Your task to perform on an android device: Search for alienware aurora on amazon, select the first entry, and add it to the cart. Image 0: 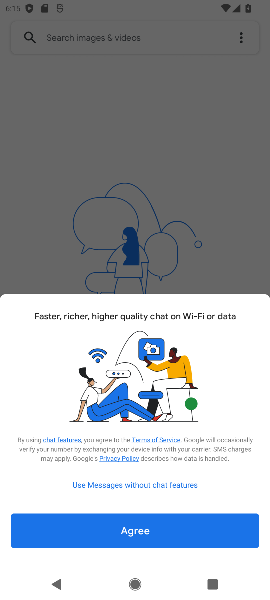
Step 0: press home button
Your task to perform on an android device: Search for alienware aurora on amazon, select the first entry, and add it to the cart. Image 1: 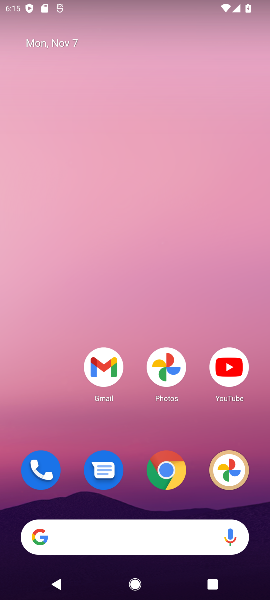
Step 1: click (153, 477)
Your task to perform on an android device: Search for alienware aurora on amazon, select the first entry, and add it to the cart. Image 2: 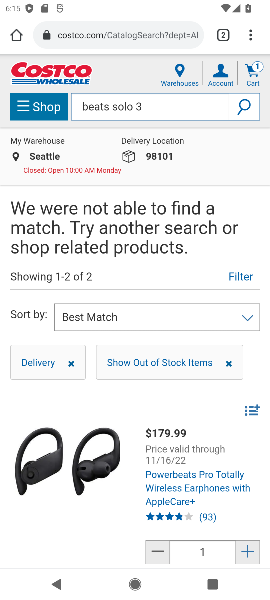
Step 2: click (112, 36)
Your task to perform on an android device: Search for alienware aurora on amazon, select the first entry, and add it to the cart. Image 3: 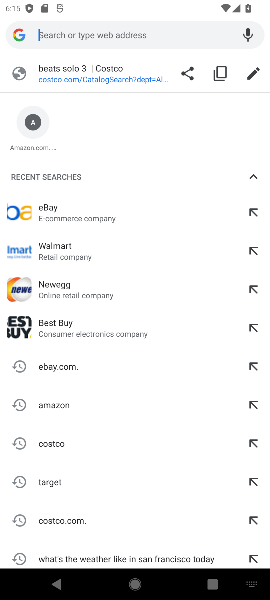
Step 3: click (86, 407)
Your task to perform on an android device: Search for alienware aurora on amazon, select the first entry, and add it to the cart. Image 4: 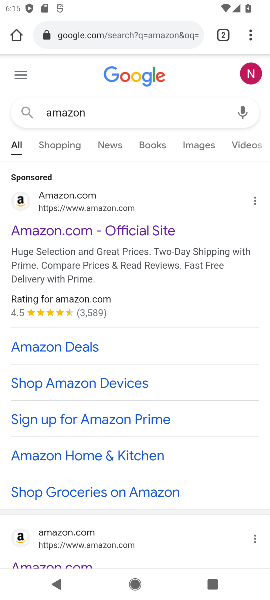
Step 4: click (100, 226)
Your task to perform on an android device: Search for alienware aurora on amazon, select the first entry, and add it to the cart. Image 5: 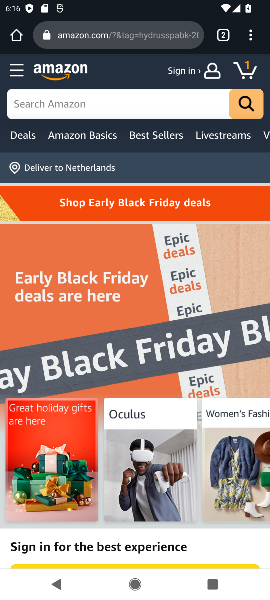
Step 5: click (82, 106)
Your task to perform on an android device: Search for alienware aurora on amazon, select the first entry, and add it to the cart. Image 6: 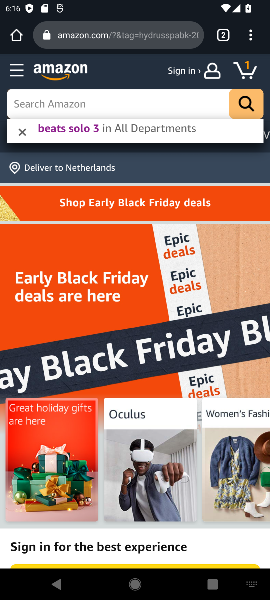
Step 6: type "alienware aurora"
Your task to perform on an android device: Search for alienware aurora on amazon, select the first entry, and add it to the cart. Image 7: 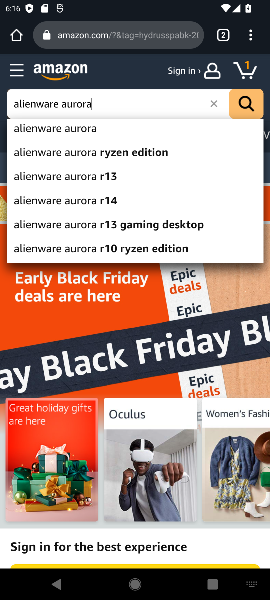
Step 7: click (244, 99)
Your task to perform on an android device: Search for alienware aurora on amazon, select the first entry, and add it to the cart. Image 8: 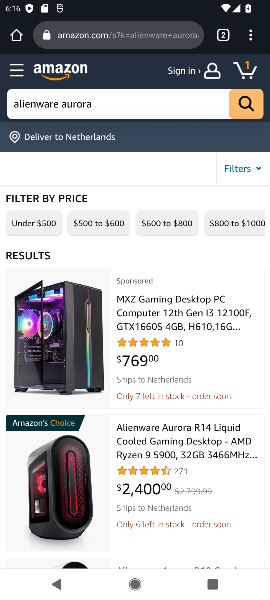
Step 8: click (155, 437)
Your task to perform on an android device: Search for alienware aurora on amazon, select the first entry, and add it to the cart. Image 9: 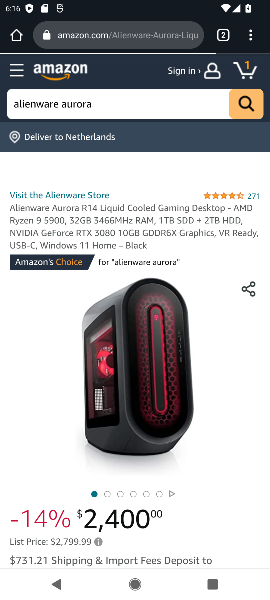
Step 9: drag from (113, 471) to (107, 155)
Your task to perform on an android device: Search for alienware aurora on amazon, select the first entry, and add it to the cart. Image 10: 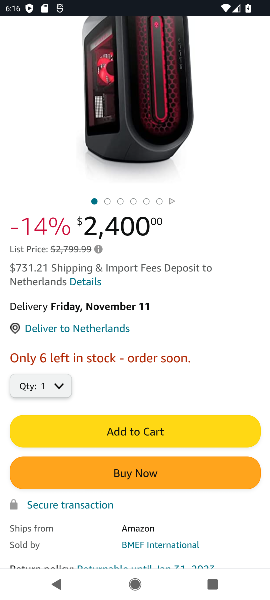
Step 10: click (121, 440)
Your task to perform on an android device: Search for alienware aurora on amazon, select the first entry, and add it to the cart. Image 11: 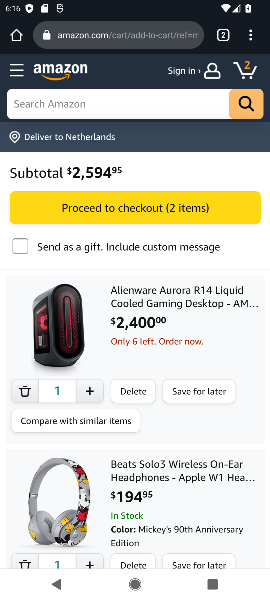
Step 11: task complete